Your task to perform on an android device: open a new tab in the chrome app Image 0: 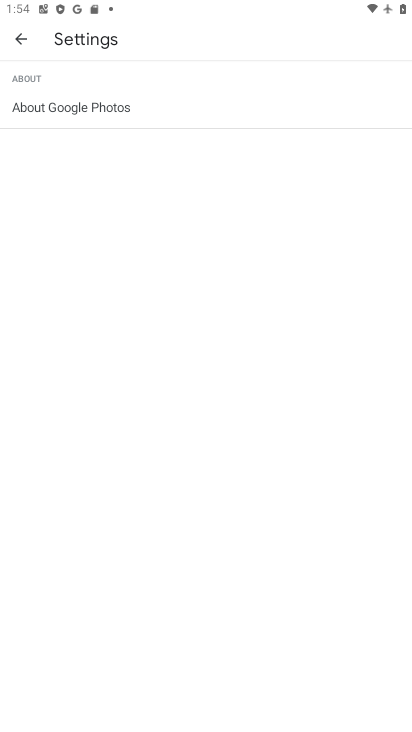
Step 0: press home button
Your task to perform on an android device: open a new tab in the chrome app Image 1: 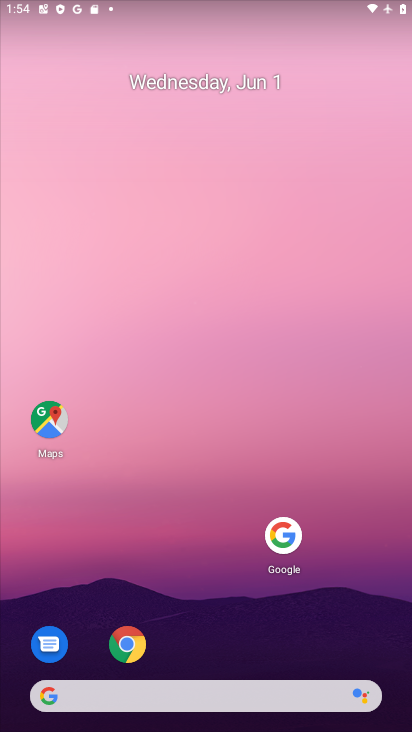
Step 1: click (136, 637)
Your task to perform on an android device: open a new tab in the chrome app Image 2: 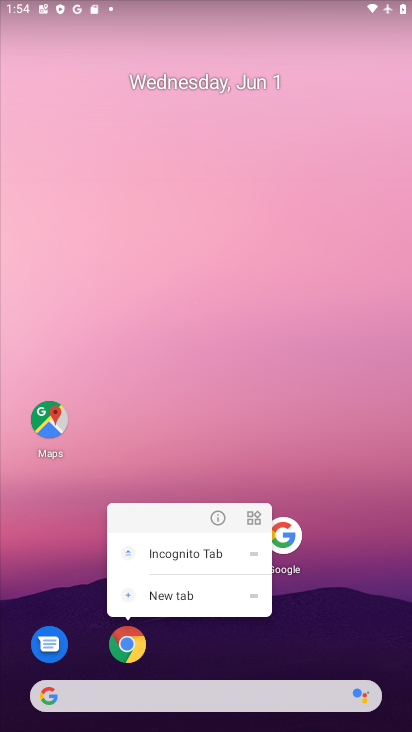
Step 2: click (141, 646)
Your task to perform on an android device: open a new tab in the chrome app Image 3: 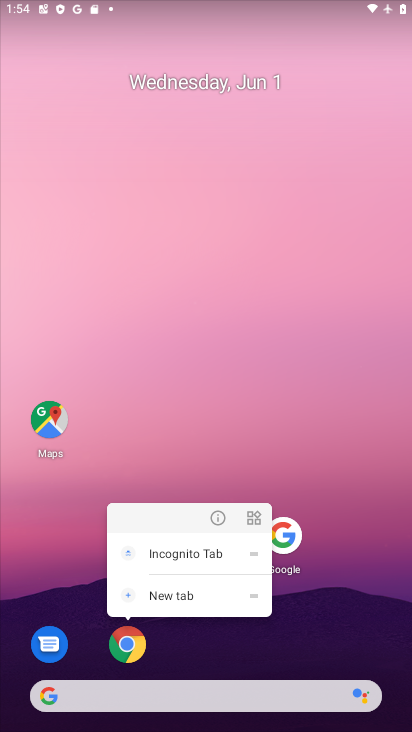
Step 3: click (131, 647)
Your task to perform on an android device: open a new tab in the chrome app Image 4: 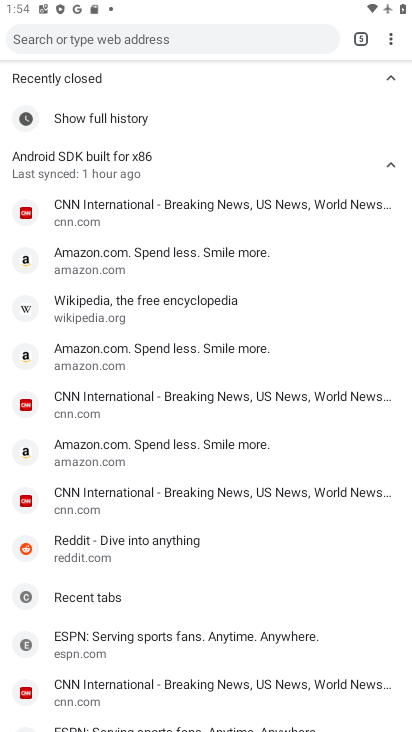
Step 4: task complete